Your task to perform on an android device: What's on my calendar today? Image 0: 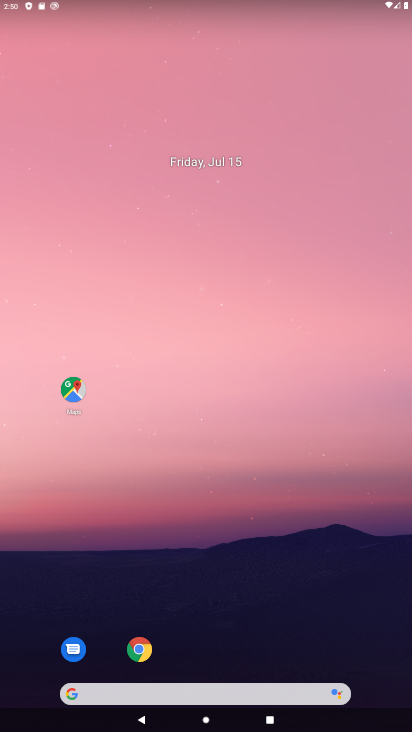
Step 0: drag from (231, 687) to (123, 292)
Your task to perform on an android device: What's on my calendar today? Image 1: 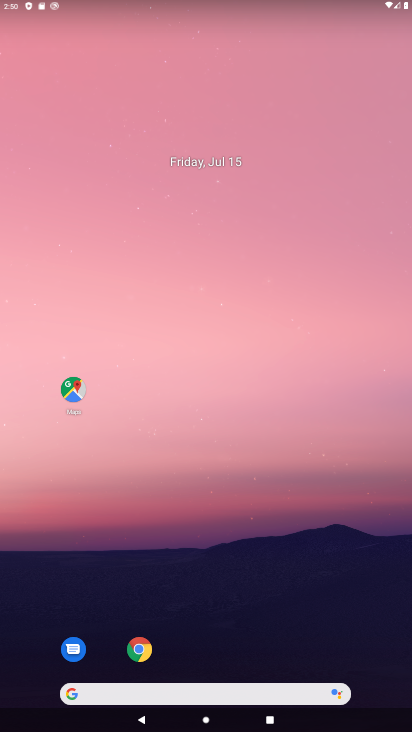
Step 1: drag from (246, 564) to (250, 259)
Your task to perform on an android device: What's on my calendar today? Image 2: 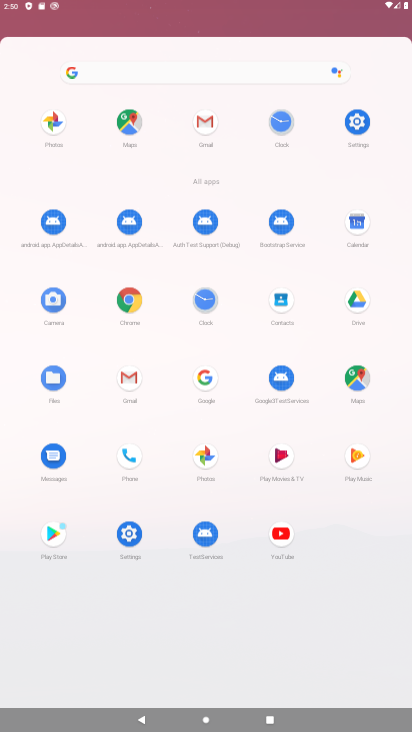
Step 2: drag from (245, 482) to (193, 139)
Your task to perform on an android device: What's on my calendar today? Image 3: 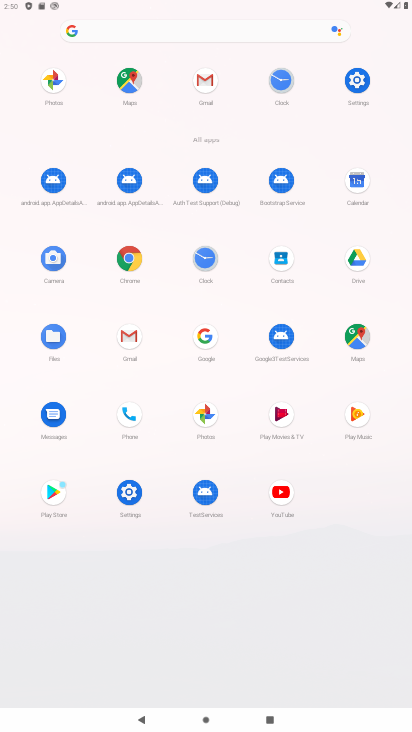
Step 3: click (348, 170)
Your task to perform on an android device: What's on my calendar today? Image 4: 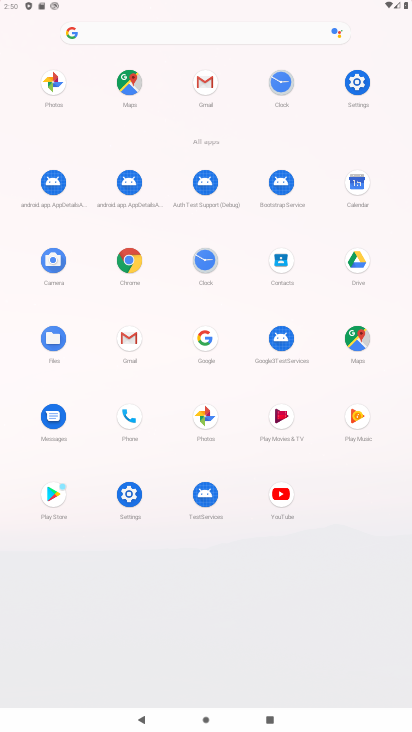
Step 4: click (353, 186)
Your task to perform on an android device: What's on my calendar today? Image 5: 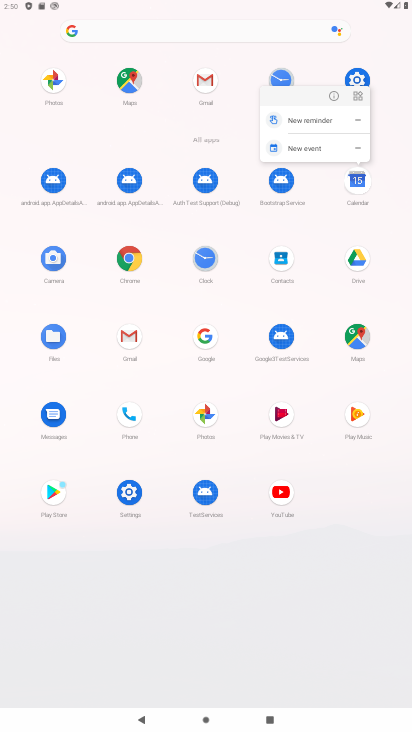
Step 5: click (356, 191)
Your task to perform on an android device: What's on my calendar today? Image 6: 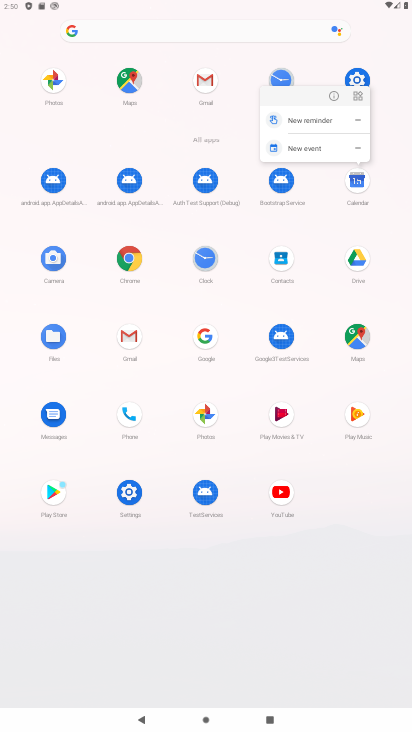
Step 6: click (356, 192)
Your task to perform on an android device: What's on my calendar today? Image 7: 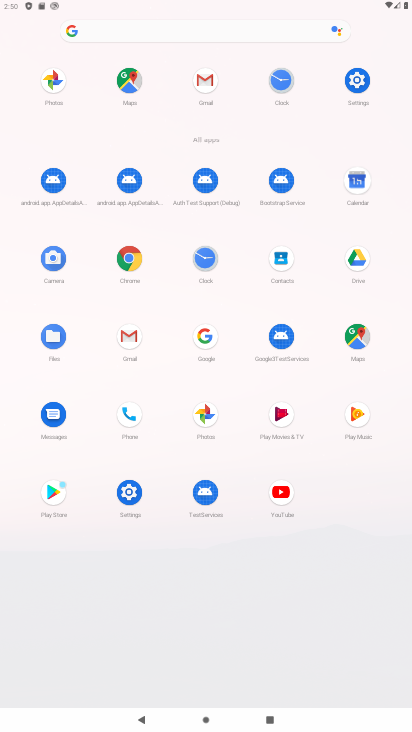
Step 7: click (360, 178)
Your task to perform on an android device: What's on my calendar today? Image 8: 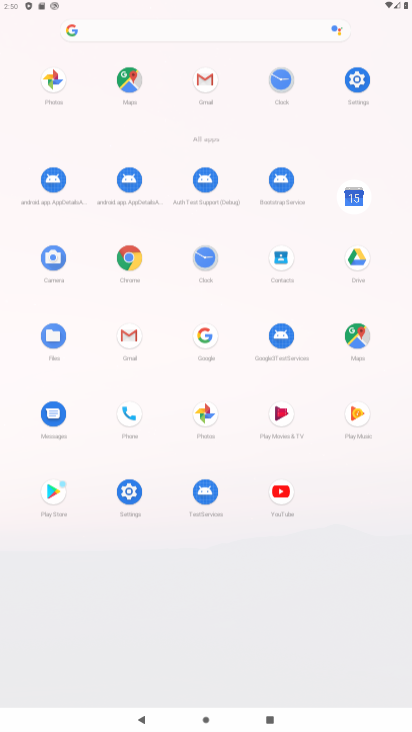
Step 8: click (360, 178)
Your task to perform on an android device: What's on my calendar today? Image 9: 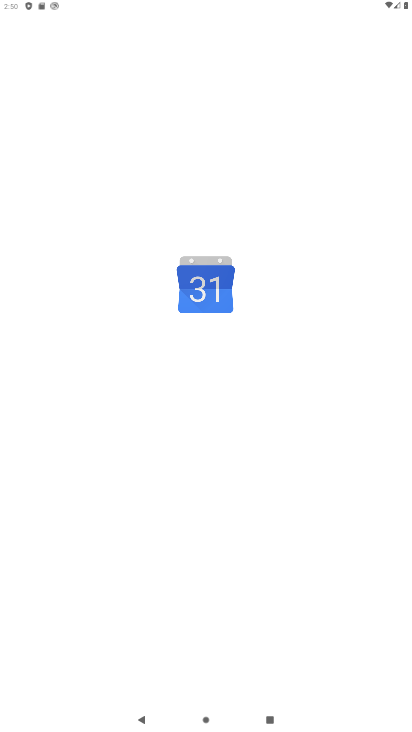
Step 9: click (360, 178)
Your task to perform on an android device: What's on my calendar today? Image 10: 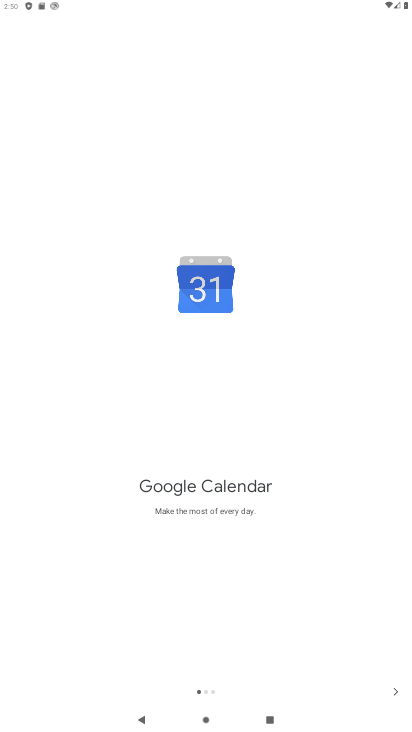
Step 10: click (388, 686)
Your task to perform on an android device: What's on my calendar today? Image 11: 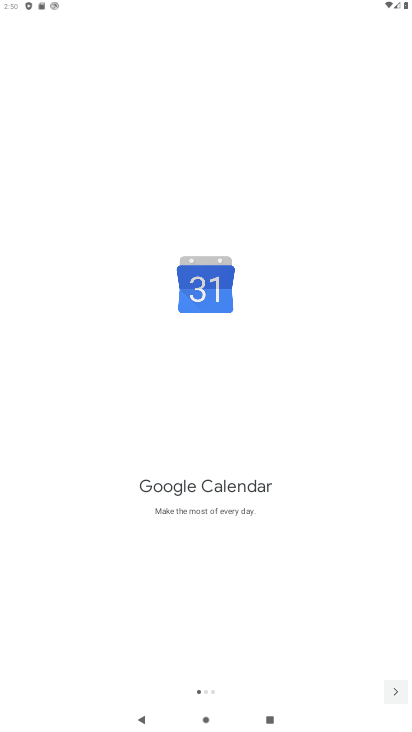
Step 11: click (388, 686)
Your task to perform on an android device: What's on my calendar today? Image 12: 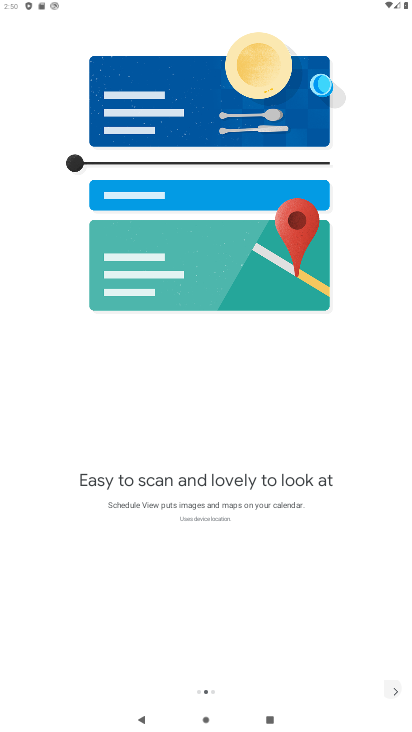
Step 12: click (392, 686)
Your task to perform on an android device: What's on my calendar today? Image 13: 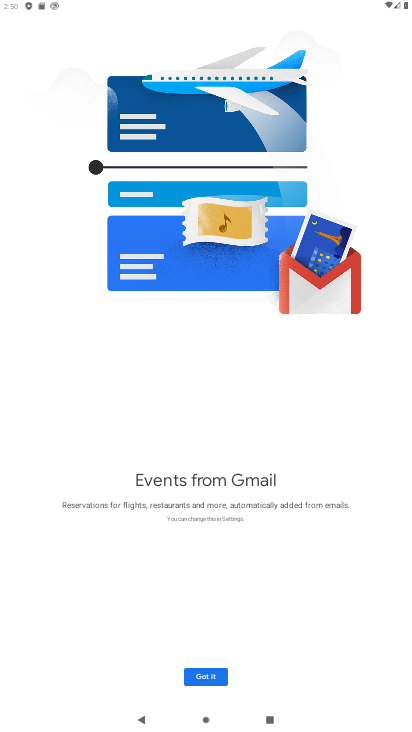
Step 13: click (393, 683)
Your task to perform on an android device: What's on my calendar today? Image 14: 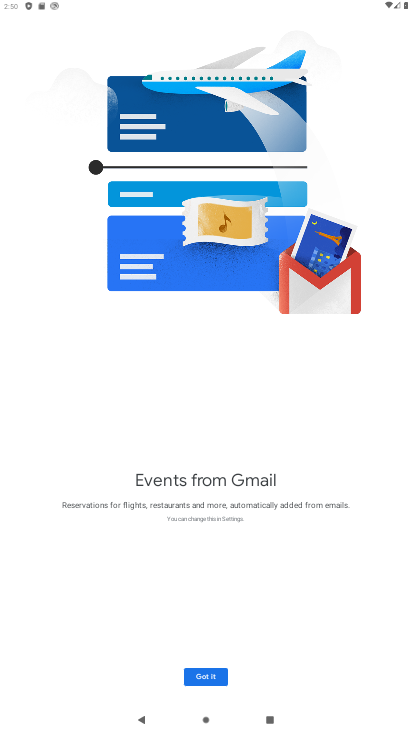
Step 14: click (209, 686)
Your task to perform on an android device: What's on my calendar today? Image 15: 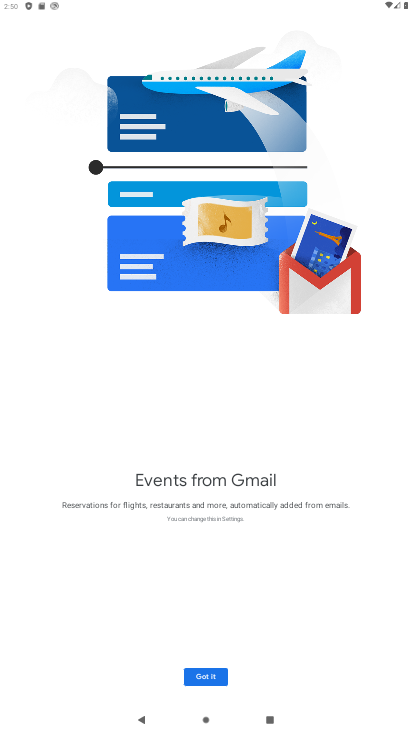
Step 15: click (207, 663)
Your task to perform on an android device: What's on my calendar today? Image 16: 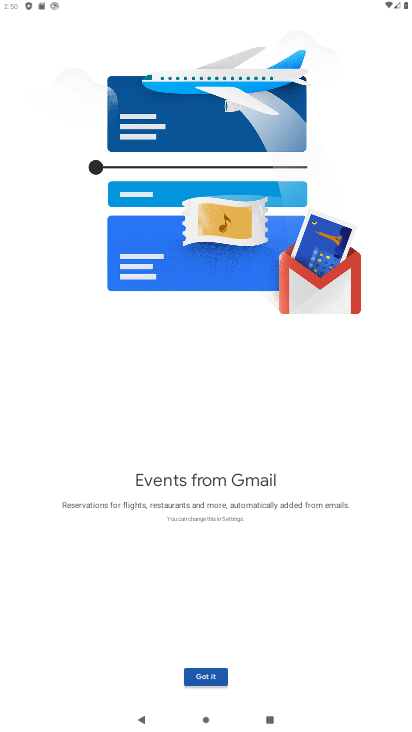
Step 16: click (207, 664)
Your task to perform on an android device: What's on my calendar today? Image 17: 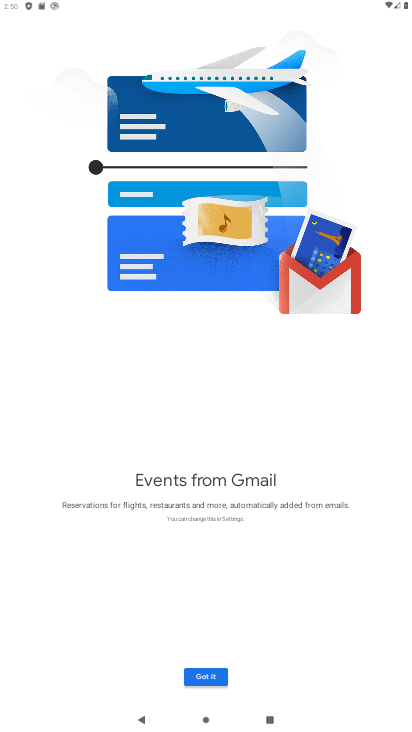
Step 17: click (222, 688)
Your task to perform on an android device: What's on my calendar today? Image 18: 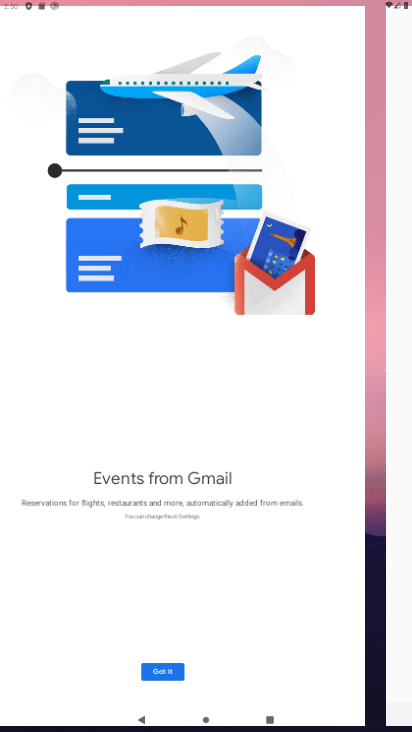
Step 18: click (223, 689)
Your task to perform on an android device: What's on my calendar today? Image 19: 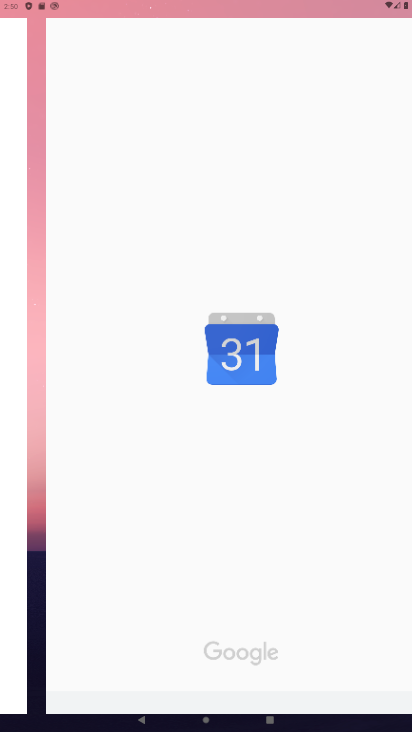
Step 19: click (226, 688)
Your task to perform on an android device: What's on my calendar today? Image 20: 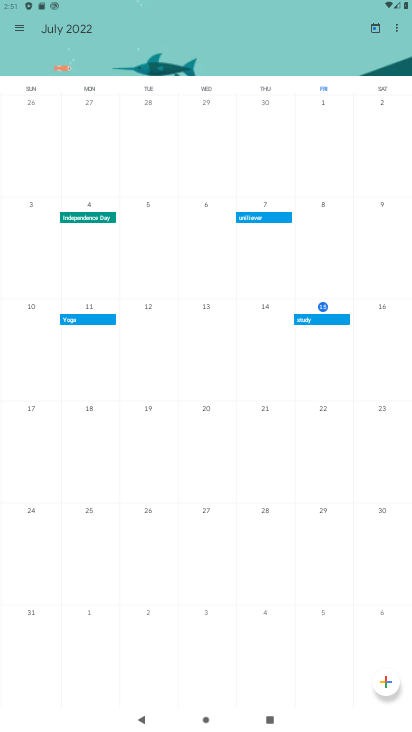
Step 20: task complete